Your task to perform on an android device: turn on data saver in the chrome app Image 0: 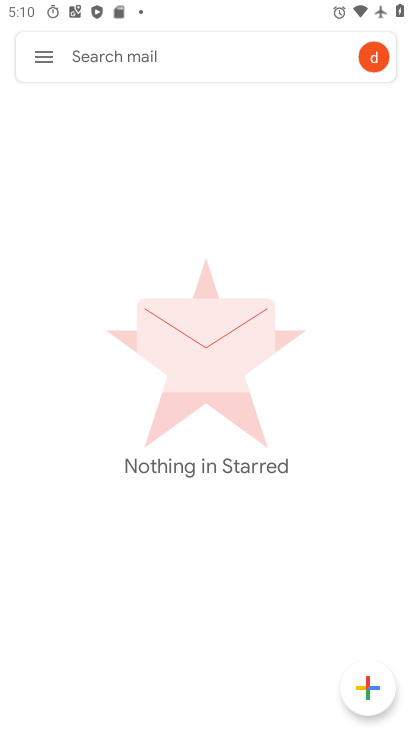
Step 0: press back button
Your task to perform on an android device: turn on data saver in the chrome app Image 1: 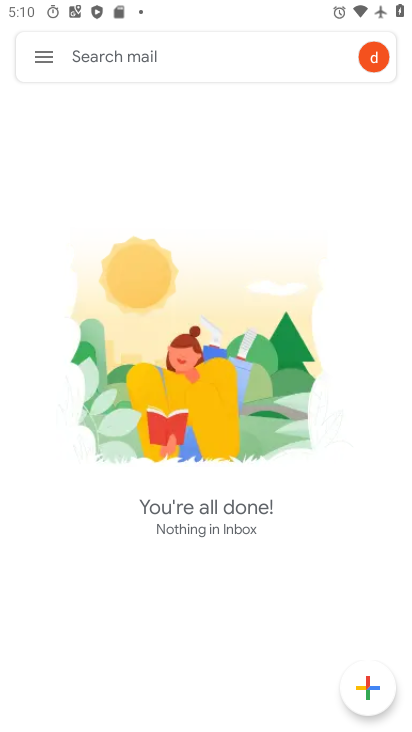
Step 1: press back button
Your task to perform on an android device: turn on data saver in the chrome app Image 2: 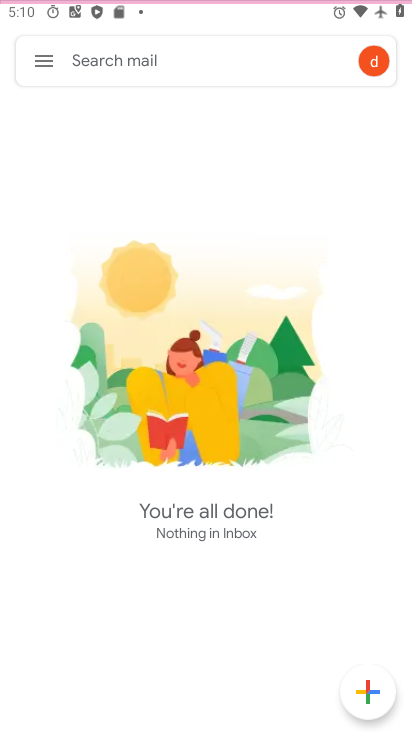
Step 2: press home button
Your task to perform on an android device: turn on data saver in the chrome app Image 3: 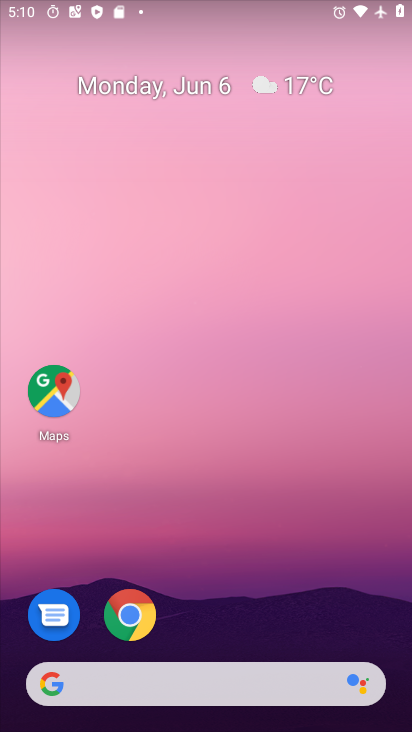
Step 3: drag from (227, 617) to (186, 2)
Your task to perform on an android device: turn on data saver in the chrome app Image 4: 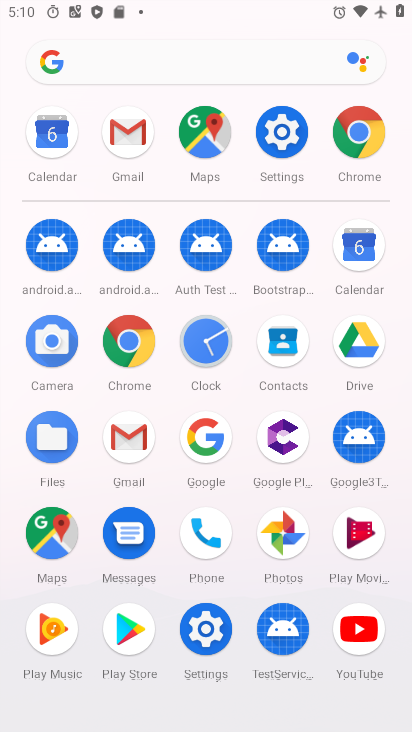
Step 4: click (356, 147)
Your task to perform on an android device: turn on data saver in the chrome app Image 5: 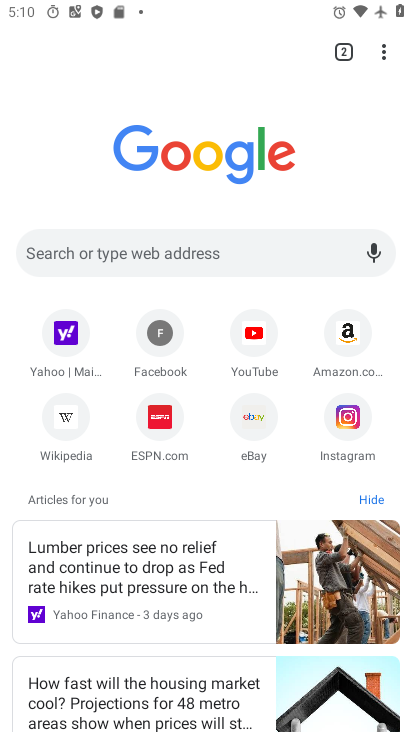
Step 5: drag from (382, 55) to (228, 444)
Your task to perform on an android device: turn on data saver in the chrome app Image 6: 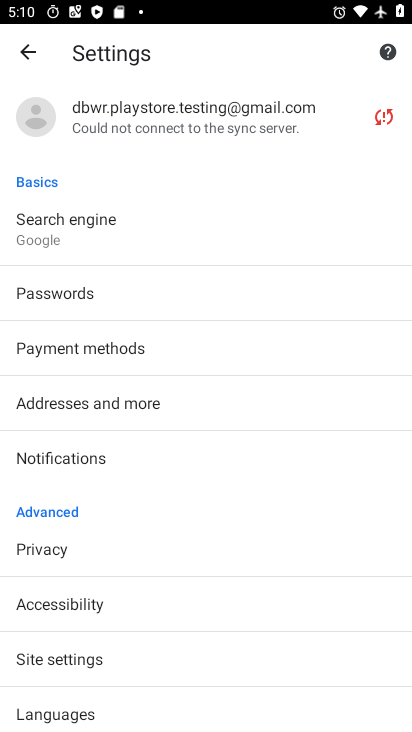
Step 6: drag from (241, 621) to (278, 185)
Your task to perform on an android device: turn on data saver in the chrome app Image 7: 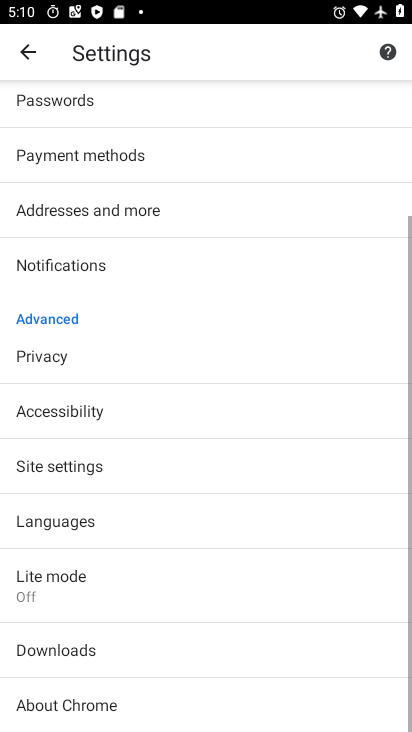
Step 7: drag from (243, 606) to (257, 198)
Your task to perform on an android device: turn on data saver in the chrome app Image 8: 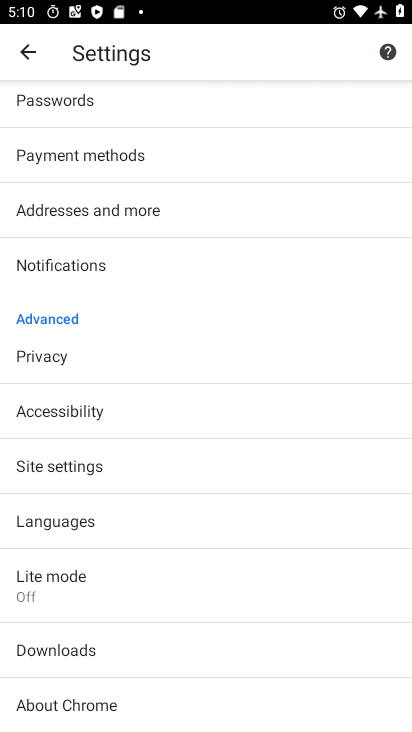
Step 8: click (117, 570)
Your task to perform on an android device: turn on data saver in the chrome app Image 9: 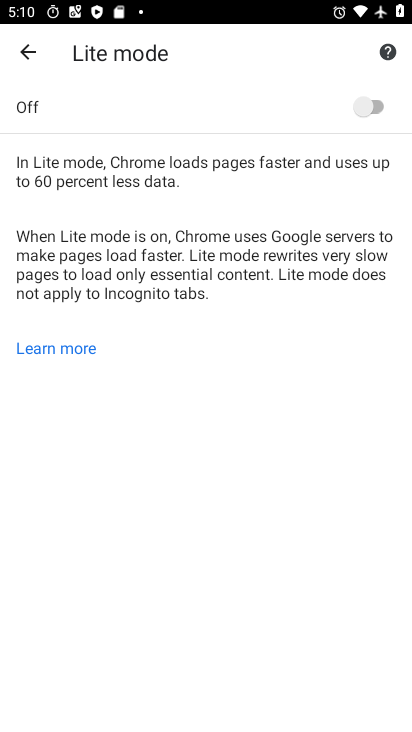
Step 9: click (370, 97)
Your task to perform on an android device: turn on data saver in the chrome app Image 10: 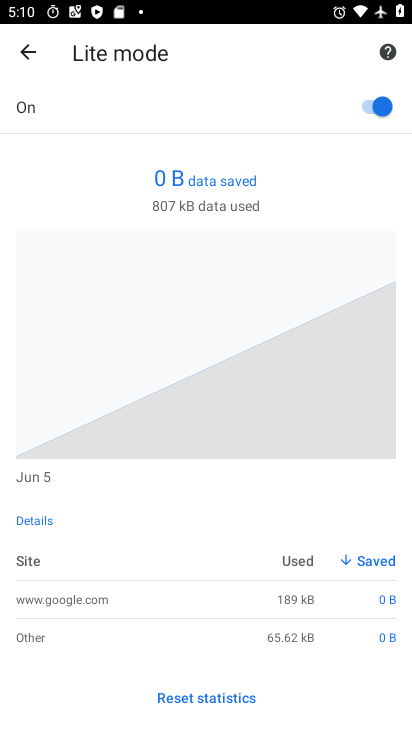
Step 10: task complete